Your task to perform on an android device: Search for sushi restaurants on Maps Image 0: 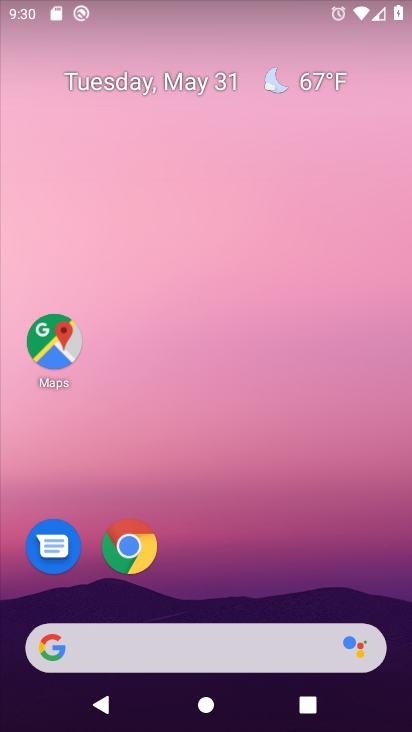
Step 0: drag from (232, 584) to (264, 126)
Your task to perform on an android device: Search for sushi restaurants on Maps Image 1: 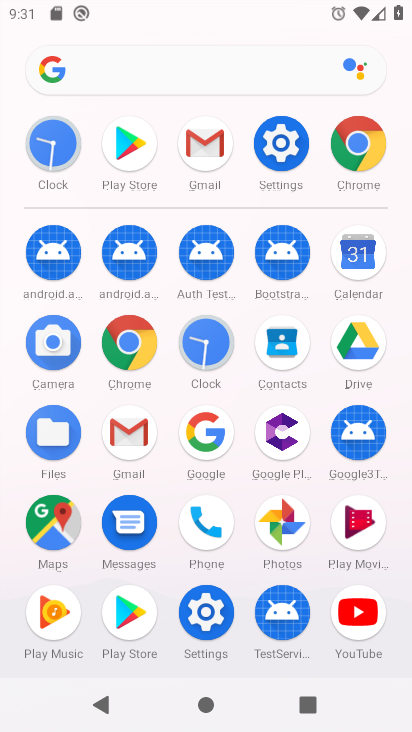
Step 1: click (65, 525)
Your task to perform on an android device: Search for sushi restaurants on Maps Image 2: 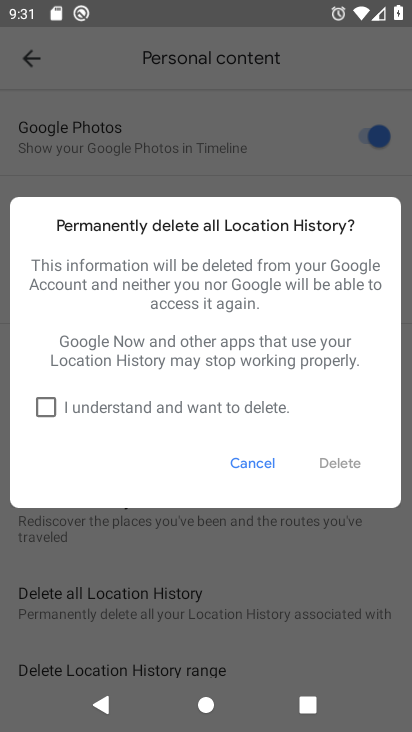
Step 2: click (260, 460)
Your task to perform on an android device: Search for sushi restaurants on Maps Image 3: 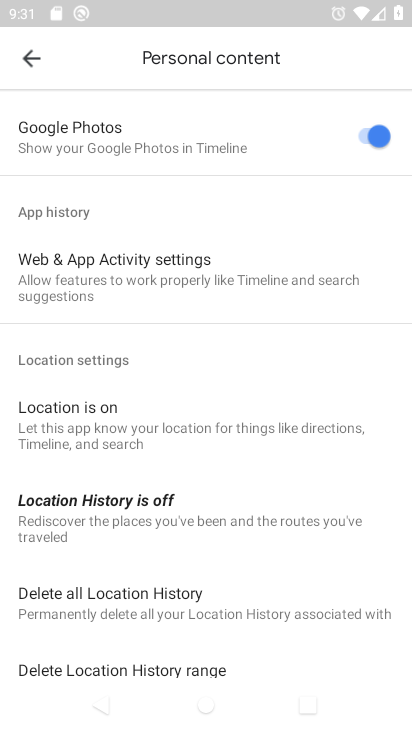
Step 3: click (24, 46)
Your task to perform on an android device: Search for sushi restaurants on Maps Image 4: 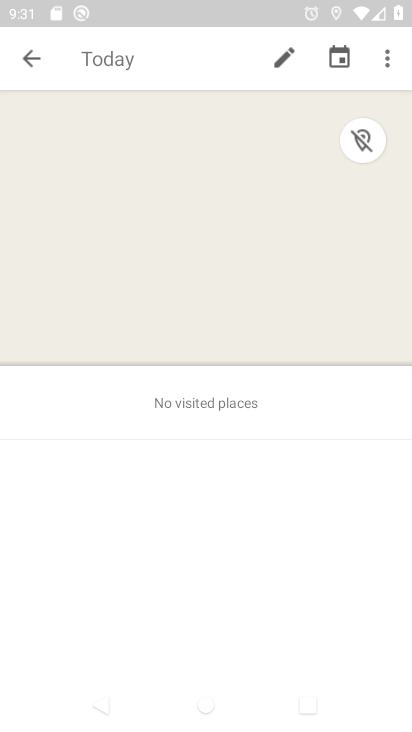
Step 4: click (31, 49)
Your task to perform on an android device: Search for sushi restaurants on Maps Image 5: 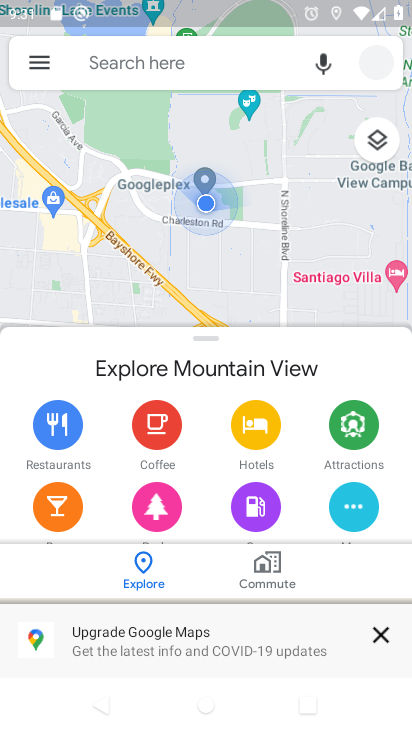
Step 5: click (155, 60)
Your task to perform on an android device: Search for sushi restaurants on Maps Image 6: 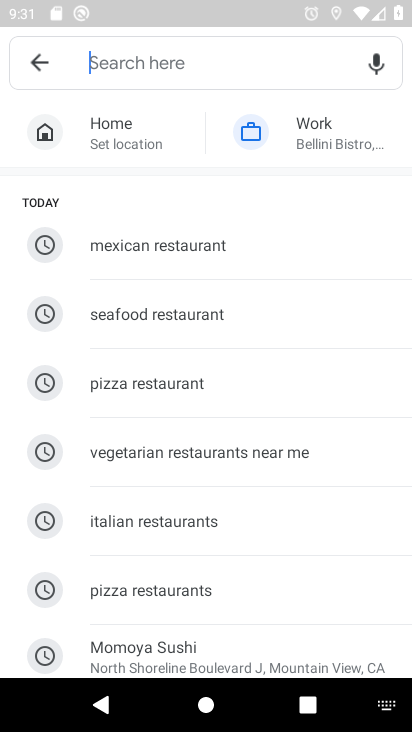
Step 6: type "sushi restaurants"
Your task to perform on an android device: Search for sushi restaurants on Maps Image 7: 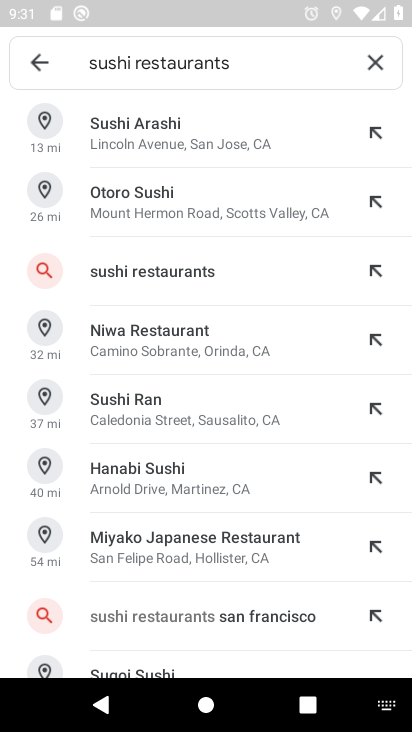
Step 7: click (195, 290)
Your task to perform on an android device: Search for sushi restaurants on Maps Image 8: 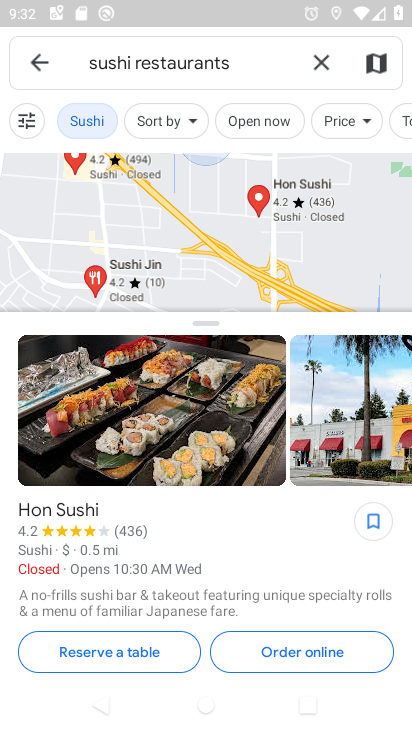
Step 8: task complete